Your task to perform on an android device: Go to Android settings Image 0: 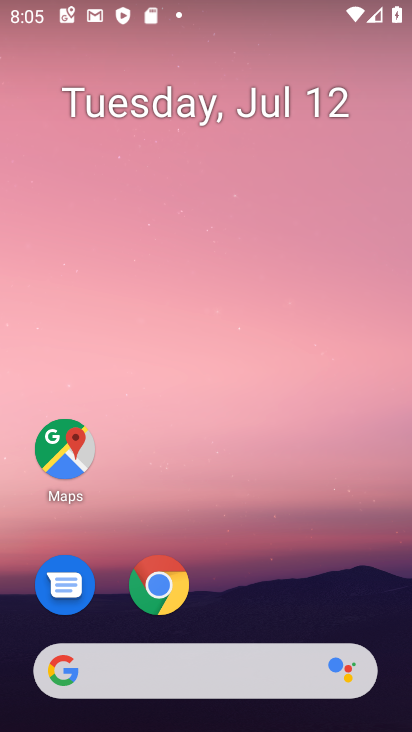
Step 0: drag from (261, 595) to (286, 1)
Your task to perform on an android device: Go to Android settings Image 1: 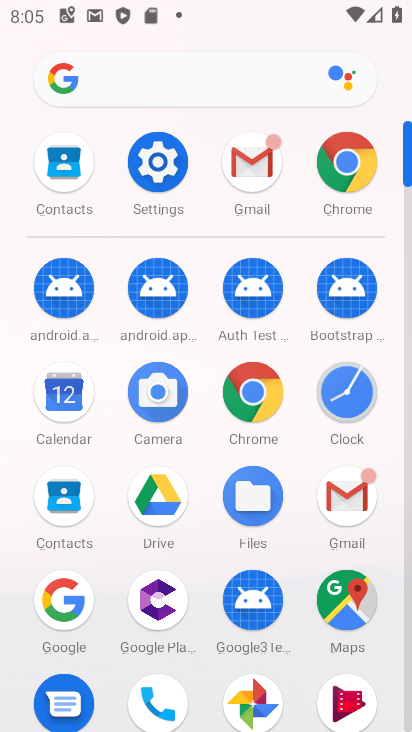
Step 1: click (166, 161)
Your task to perform on an android device: Go to Android settings Image 2: 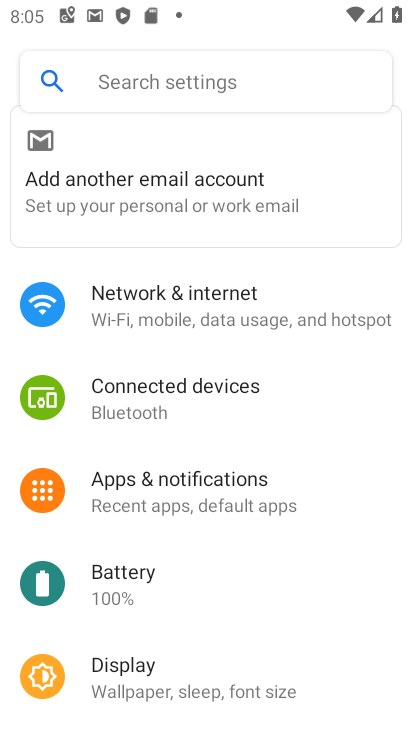
Step 2: drag from (237, 611) to (256, 77)
Your task to perform on an android device: Go to Android settings Image 3: 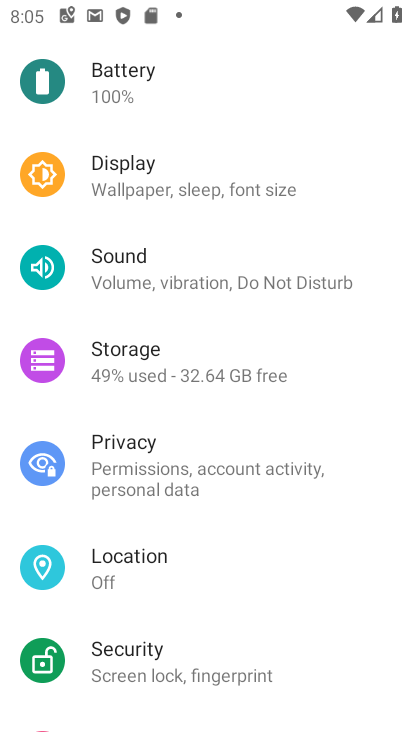
Step 3: drag from (232, 587) to (224, 39)
Your task to perform on an android device: Go to Android settings Image 4: 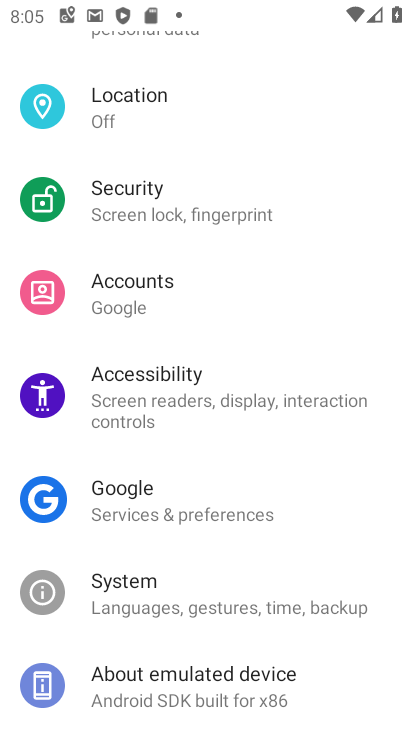
Step 4: click (223, 687)
Your task to perform on an android device: Go to Android settings Image 5: 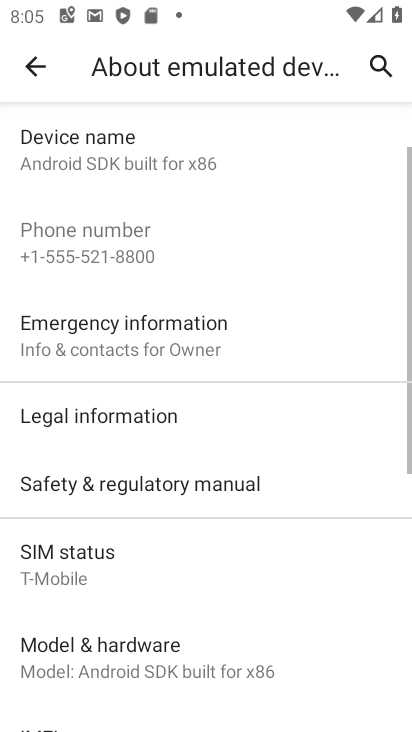
Step 5: click (222, 683)
Your task to perform on an android device: Go to Android settings Image 6: 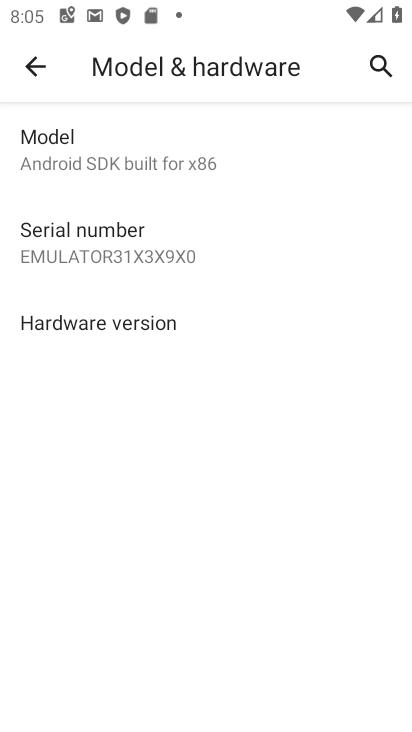
Step 6: task complete